Your task to perform on an android device: Open settings Image 0: 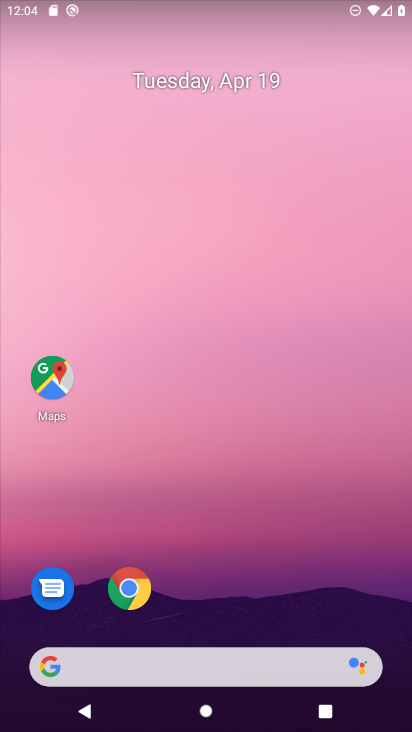
Step 0: drag from (330, 555) to (232, 13)
Your task to perform on an android device: Open settings Image 1: 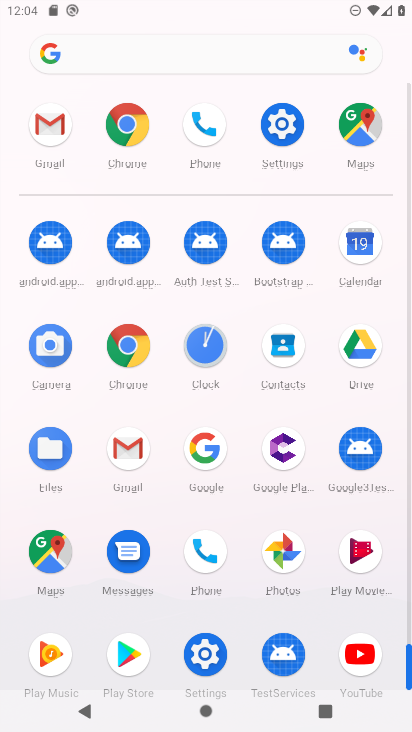
Step 1: drag from (6, 501) to (0, 243)
Your task to perform on an android device: Open settings Image 2: 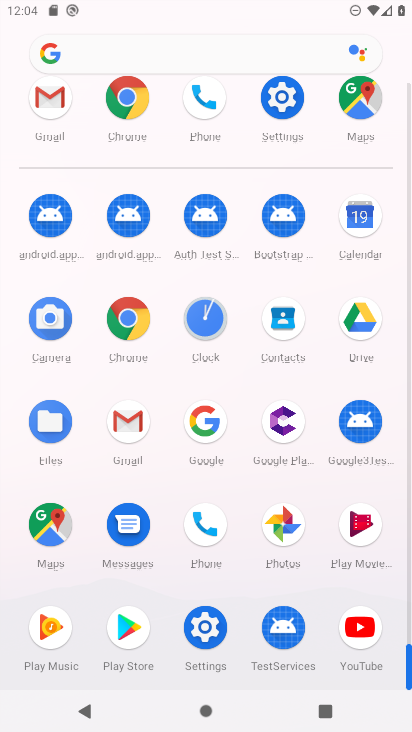
Step 2: click (200, 626)
Your task to perform on an android device: Open settings Image 3: 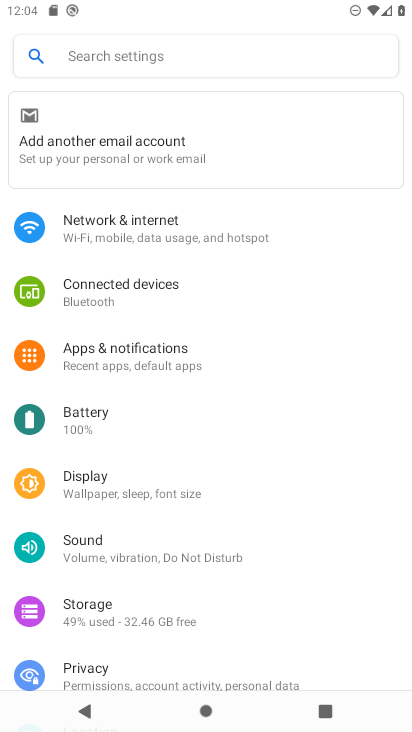
Step 3: task complete